Your task to perform on an android device: open device folders in google photos Image 0: 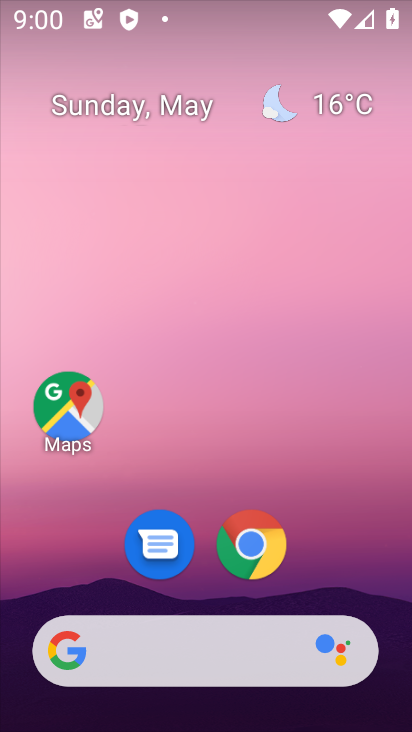
Step 0: drag from (297, 576) to (301, 19)
Your task to perform on an android device: open device folders in google photos Image 1: 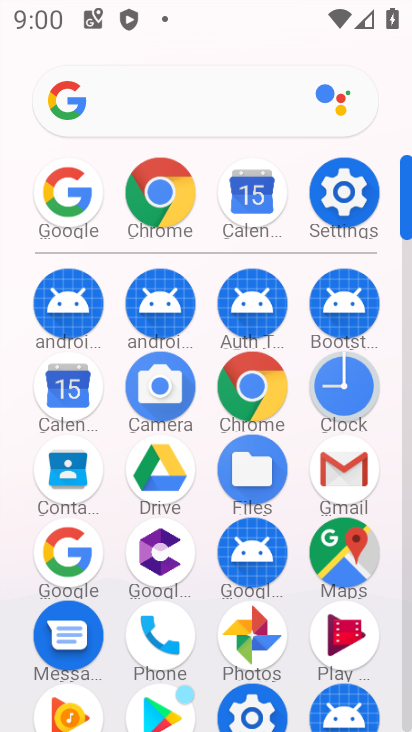
Step 1: click (250, 617)
Your task to perform on an android device: open device folders in google photos Image 2: 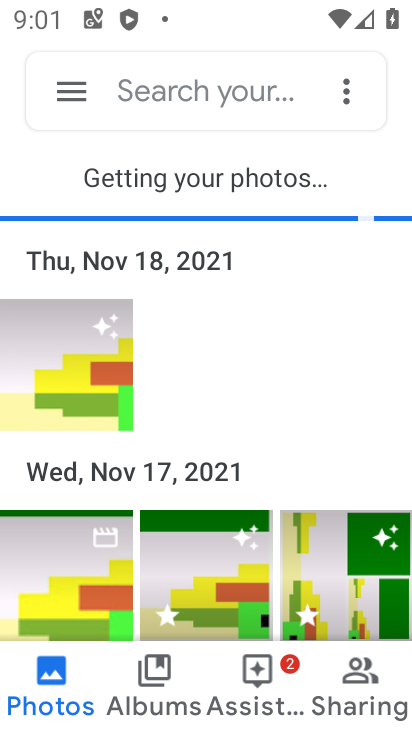
Step 2: click (81, 102)
Your task to perform on an android device: open device folders in google photos Image 3: 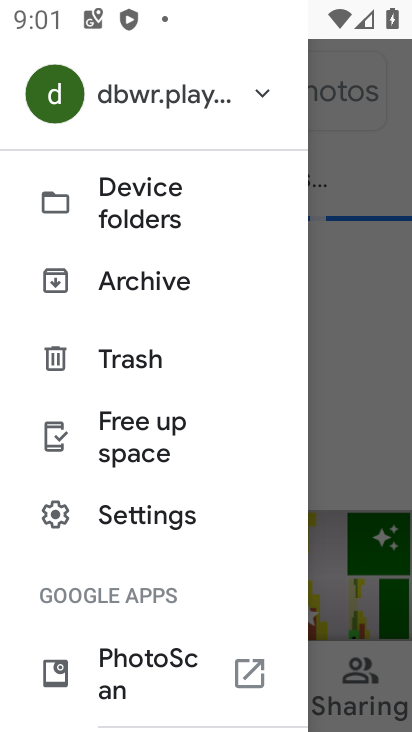
Step 3: click (140, 239)
Your task to perform on an android device: open device folders in google photos Image 4: 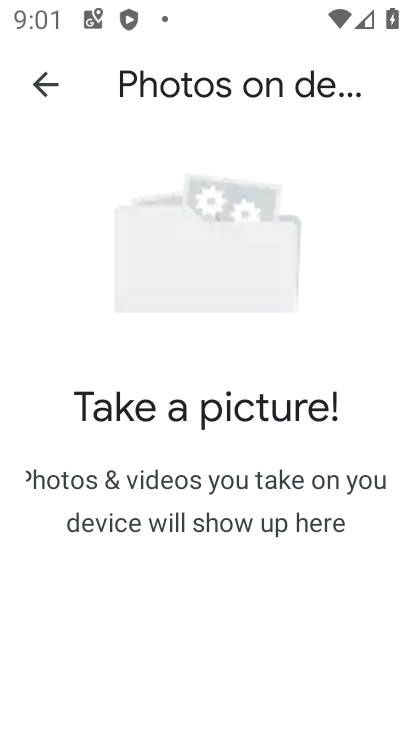
Step 4: task complete